Your task to perform on an android device: install app "Yahoo Mail" Image 0: 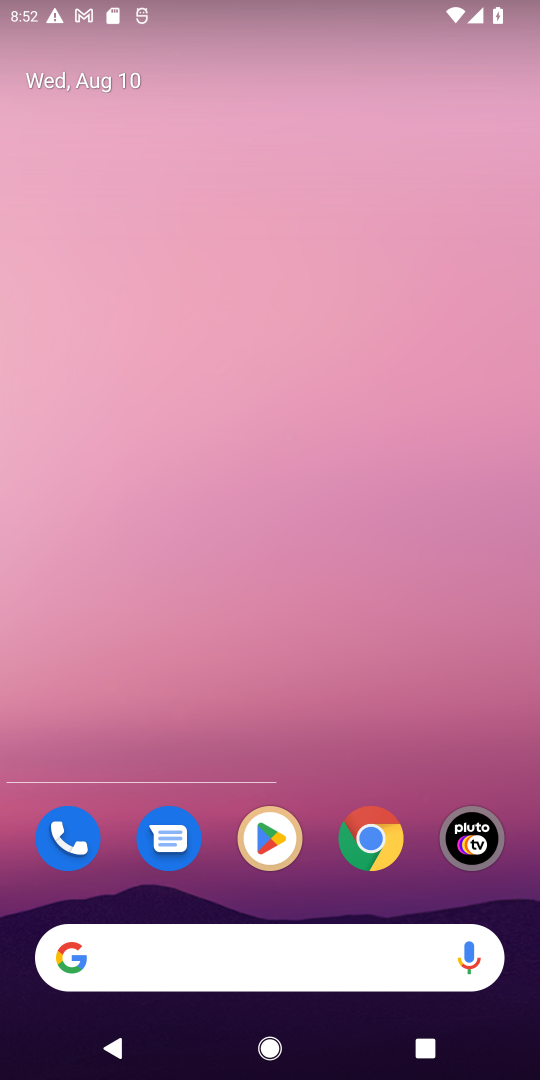
Step 0: press home button
Your task to perform on an android device: install app "Yahoo Mail" Image 1: 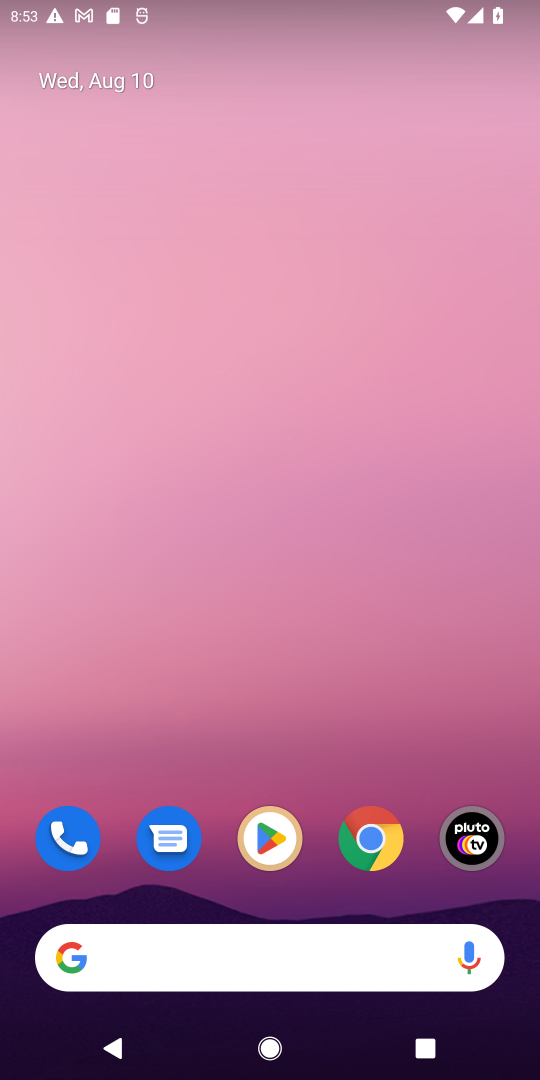
Step 1: click (270, 833)
Your task to perform on an android device: install app "Yahoo Mail" Image 2: 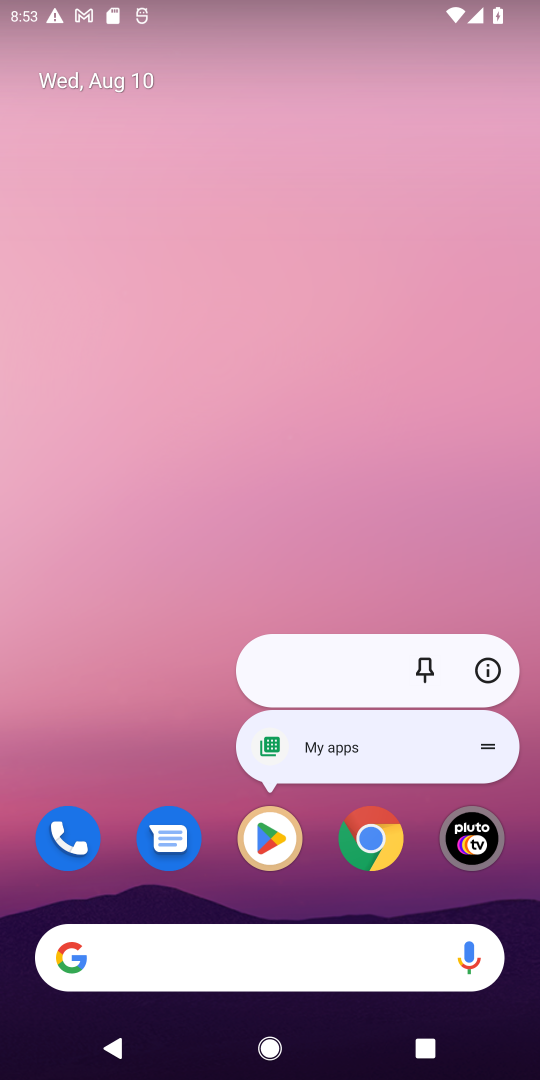
Step 2: click (270, 833)
Your task to perform on an android device: install app "Yahoo Mail" Image 3: 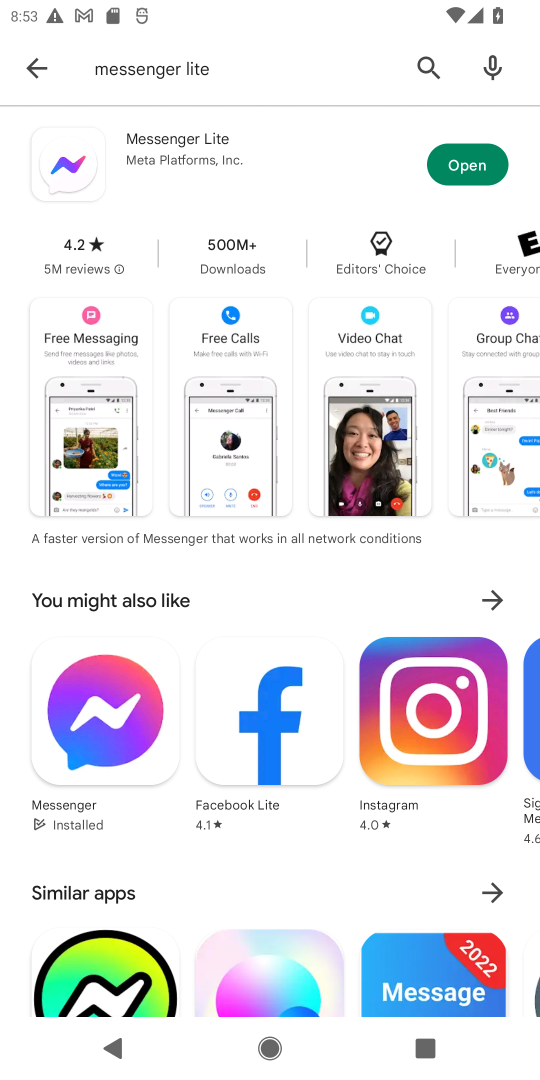
Step 3: click (432, 68)
Your task to perform on an android device: install app "Yahoo Mail" Image 4: 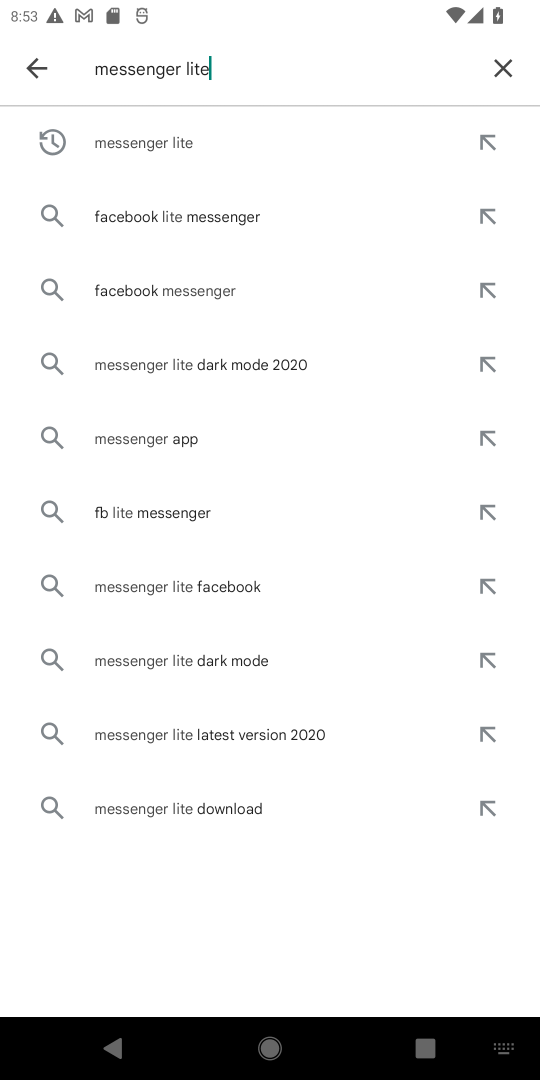
Step 4: click (508, 73)
Your task to perform on an android device: install app "Yahoo Mail" Image 5: 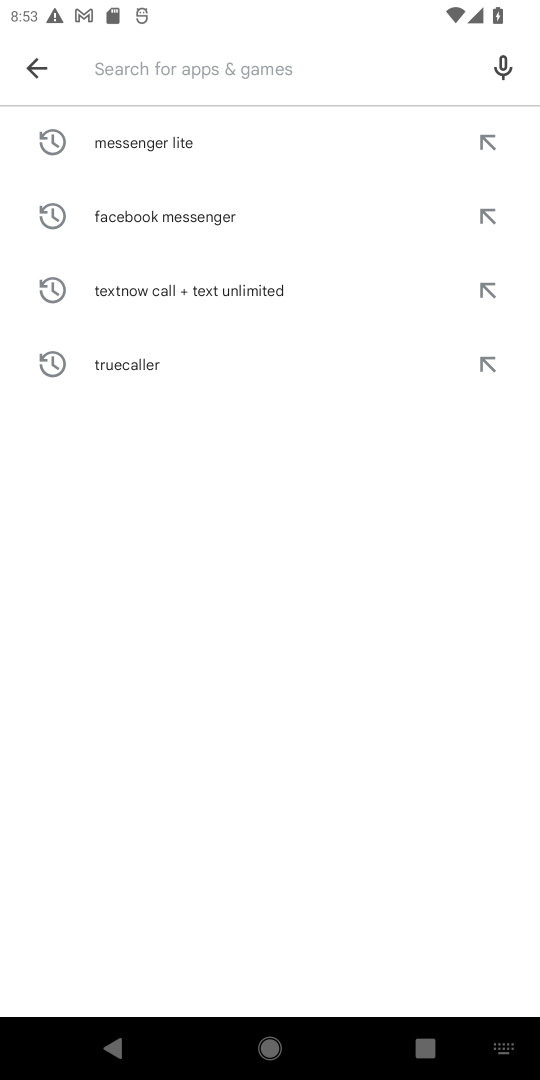
Step 5: type "Yahoo Mail"
Your task to perform on an android device: install app "Yahoo Mail" Image 6: 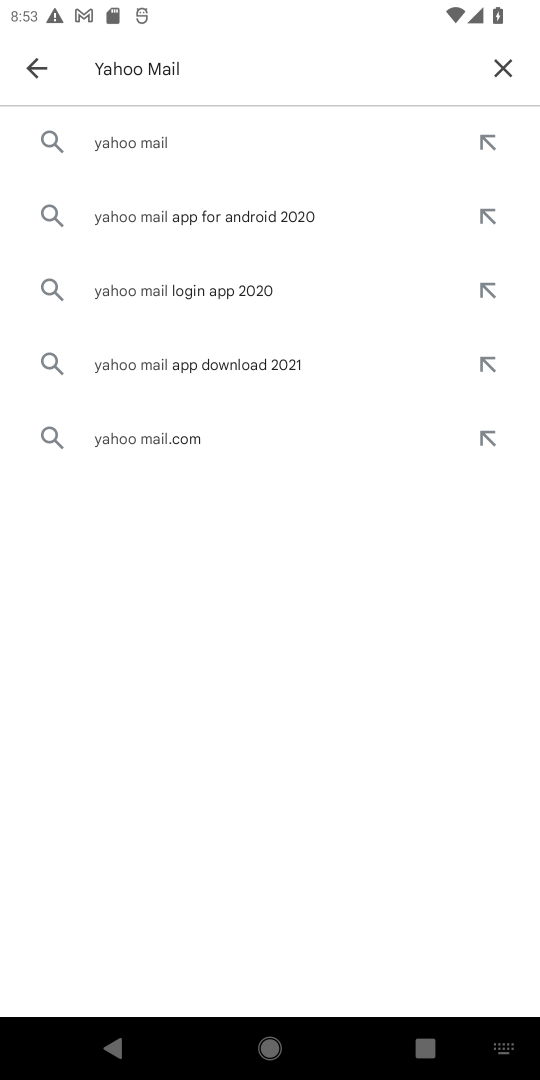
Step 6: click (182, 138)
Your task to perform on an android device: install app "Yahoo Mail" Image 7: 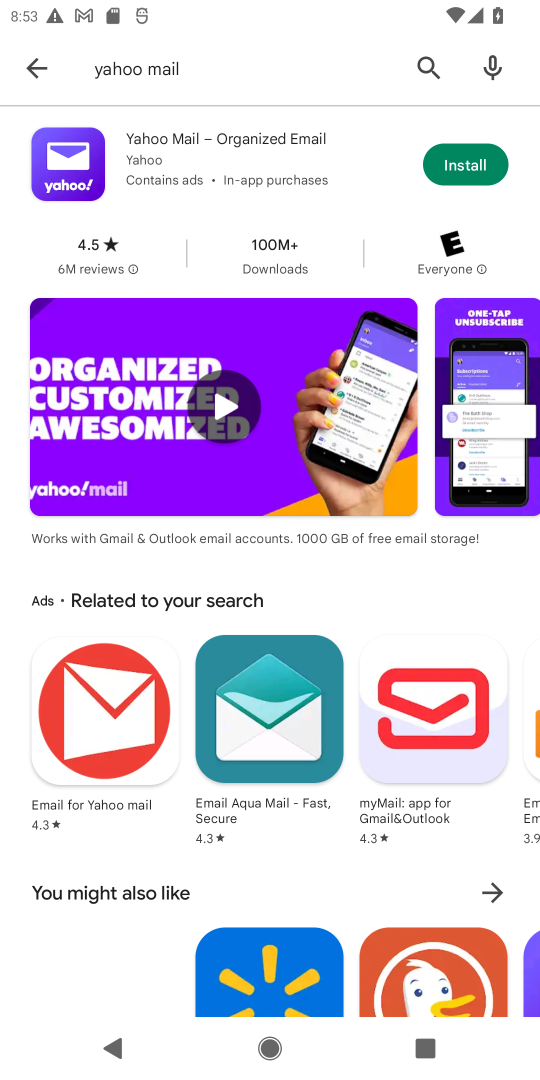
Step 7: click (466, 156)
Your task to perform on an android device: install app "Yahoo Mail" Image 8: 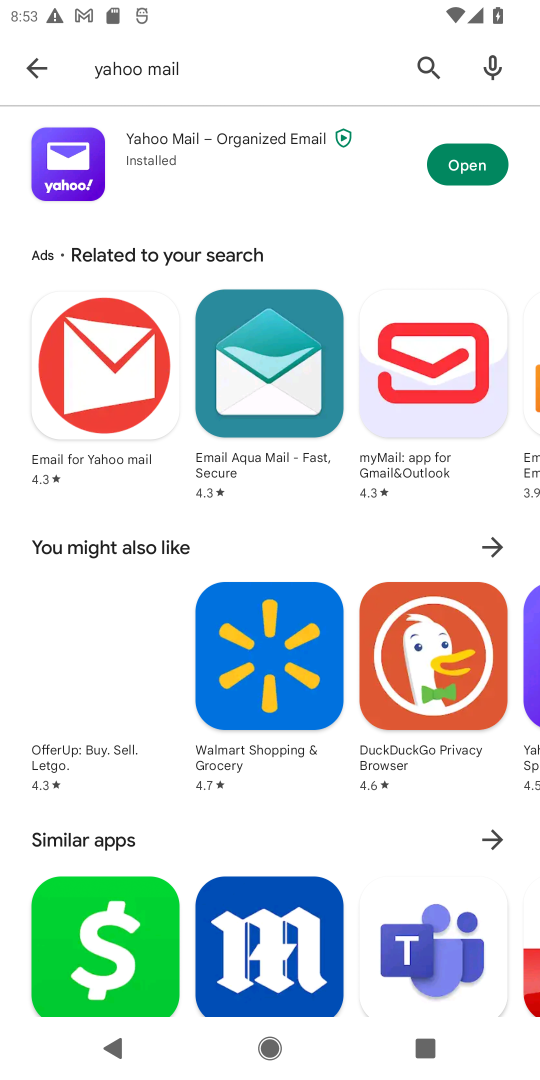
Step 8: task complete